Your task to perform on an android device: Open a new incognito window in Chrome Image 0: 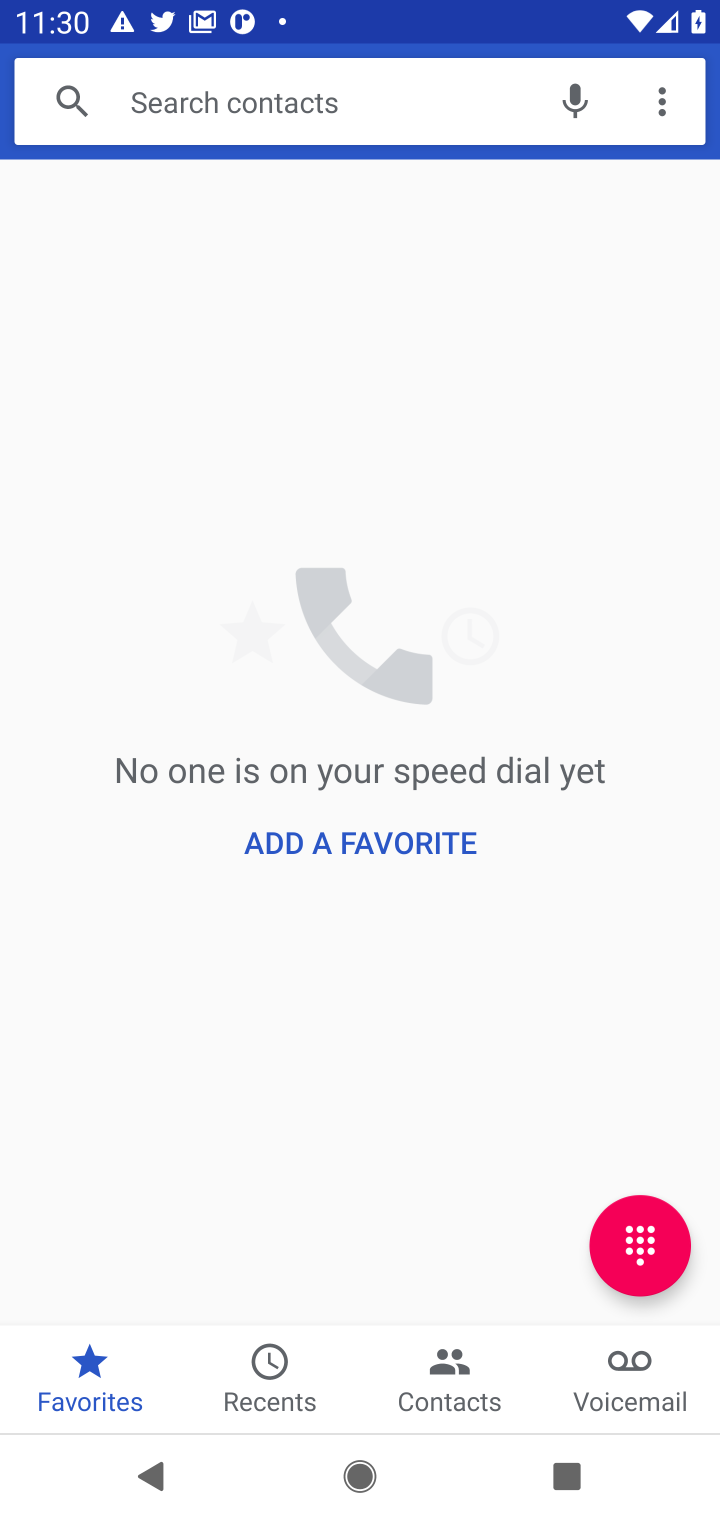
Step 0: press home button
Your task to perform on an android device: Open a new incognito window in Chrome Image 1: 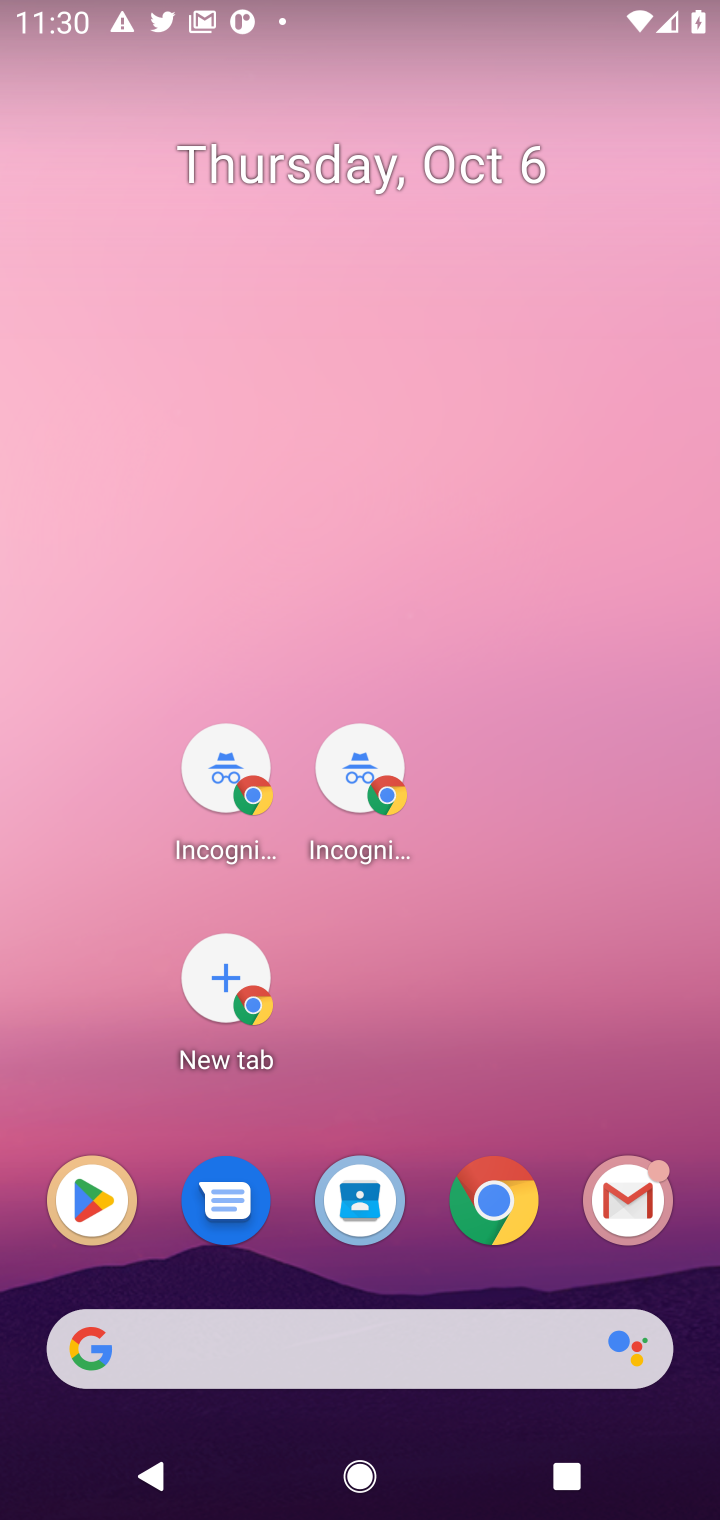
Step 1: click (503, 1223)
Your task to perform on an android device: Open a new incognito window in Chrome Image 2: 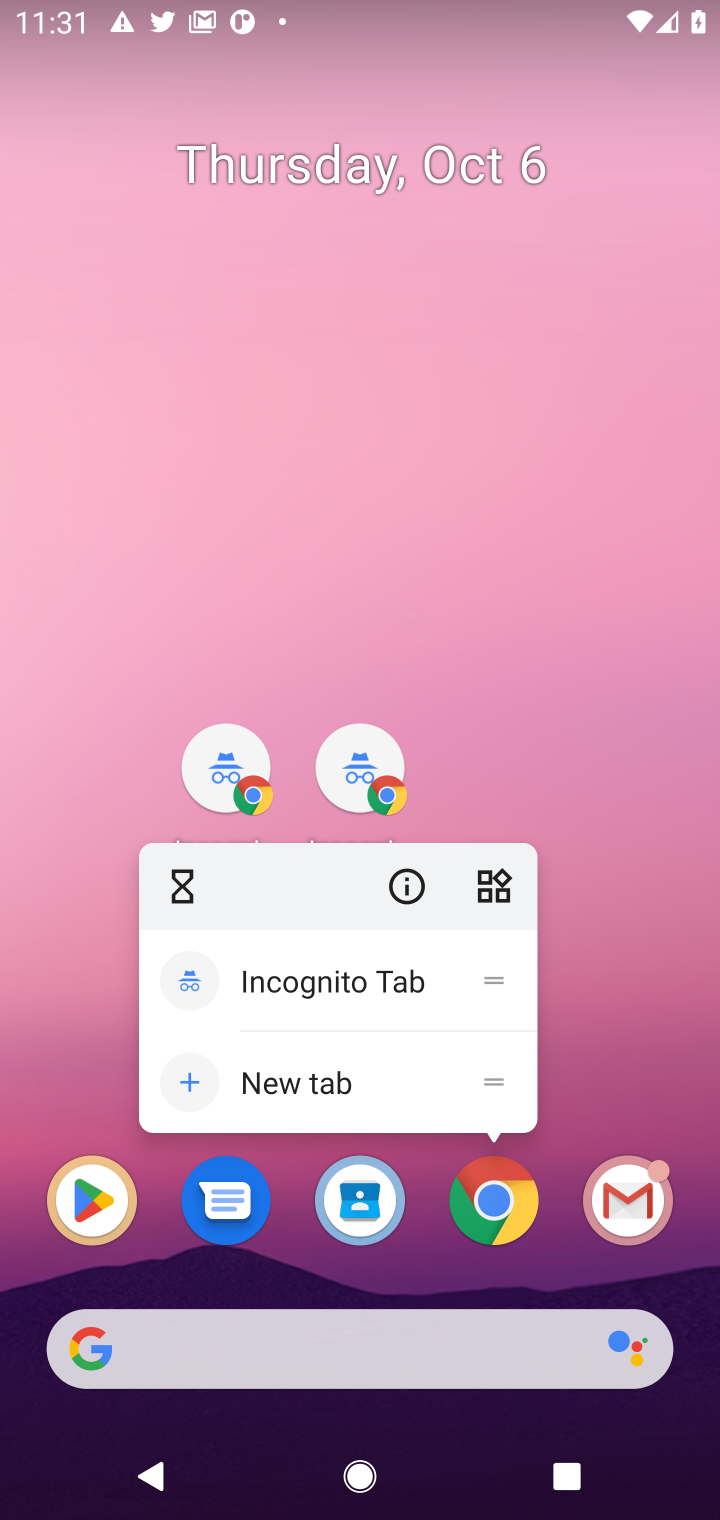
Step 2: press back button
Your task to perform on an android device: Open a new incognito window in Chrome Image 3: 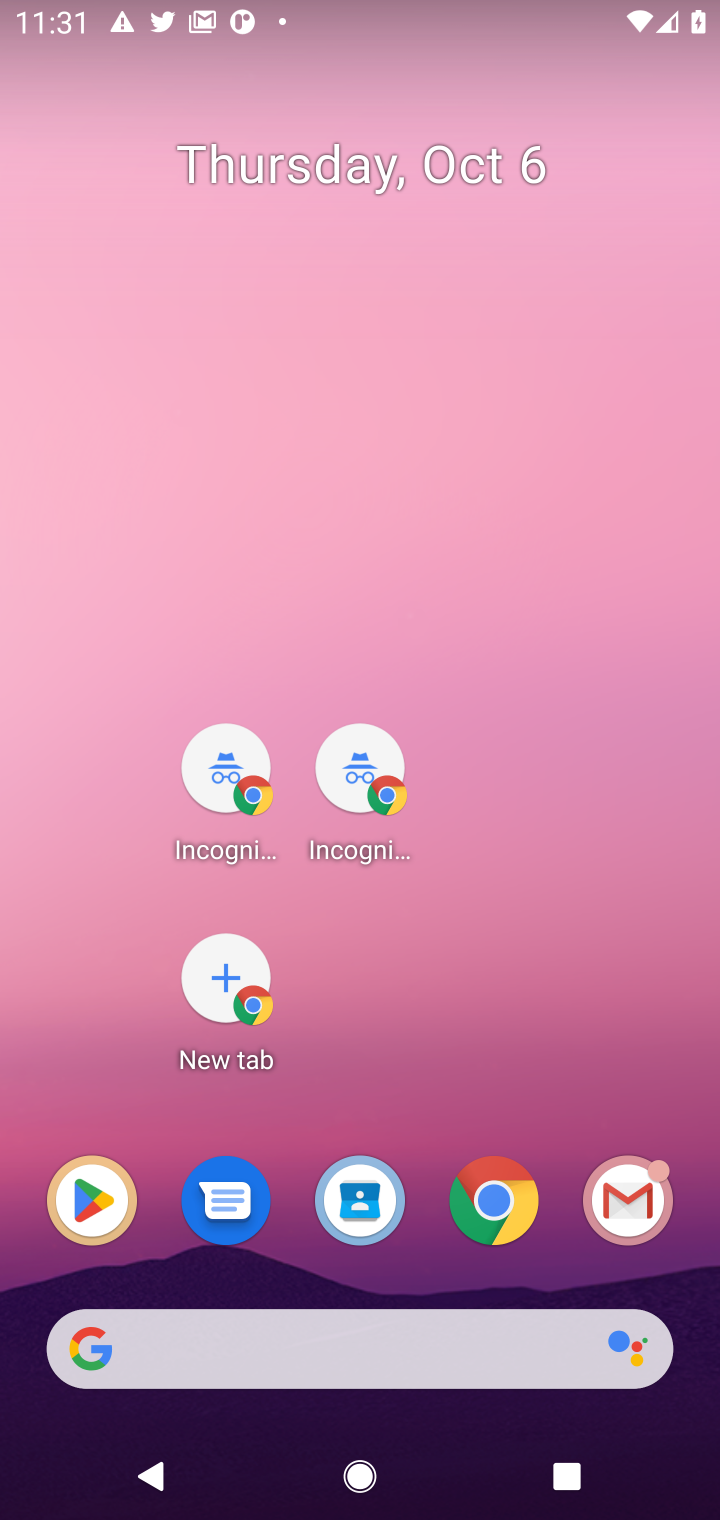
Step 3: press back button
Your task to perform on an android device: Open a new incognito window in Chrome Image 4: 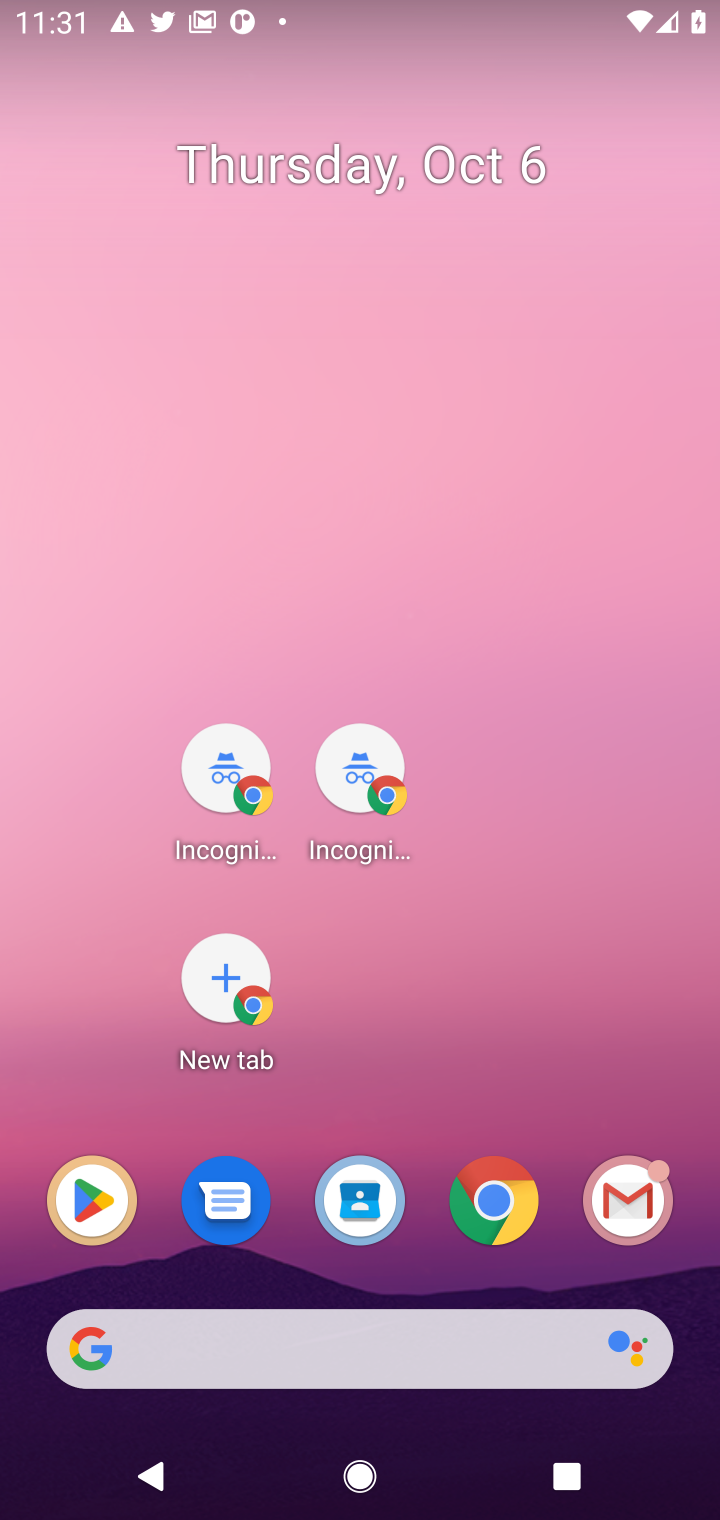
Step 4: click (508, 1195)
Your task to perform on an android device: Open a new incognito window in Chrome Image 5: 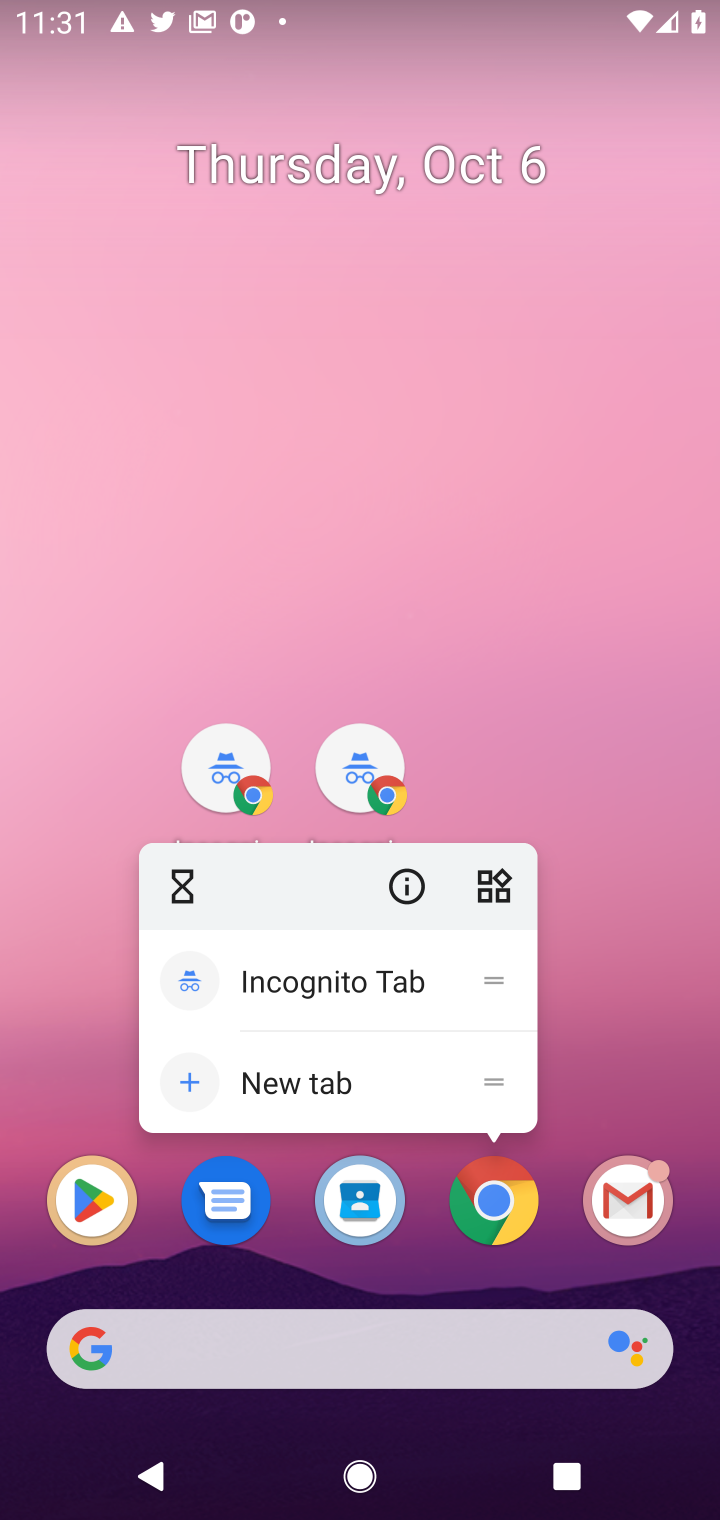
Step 5: press home button
Your task to perform on an android device: Open a new incognito window in Chrome Image 6: 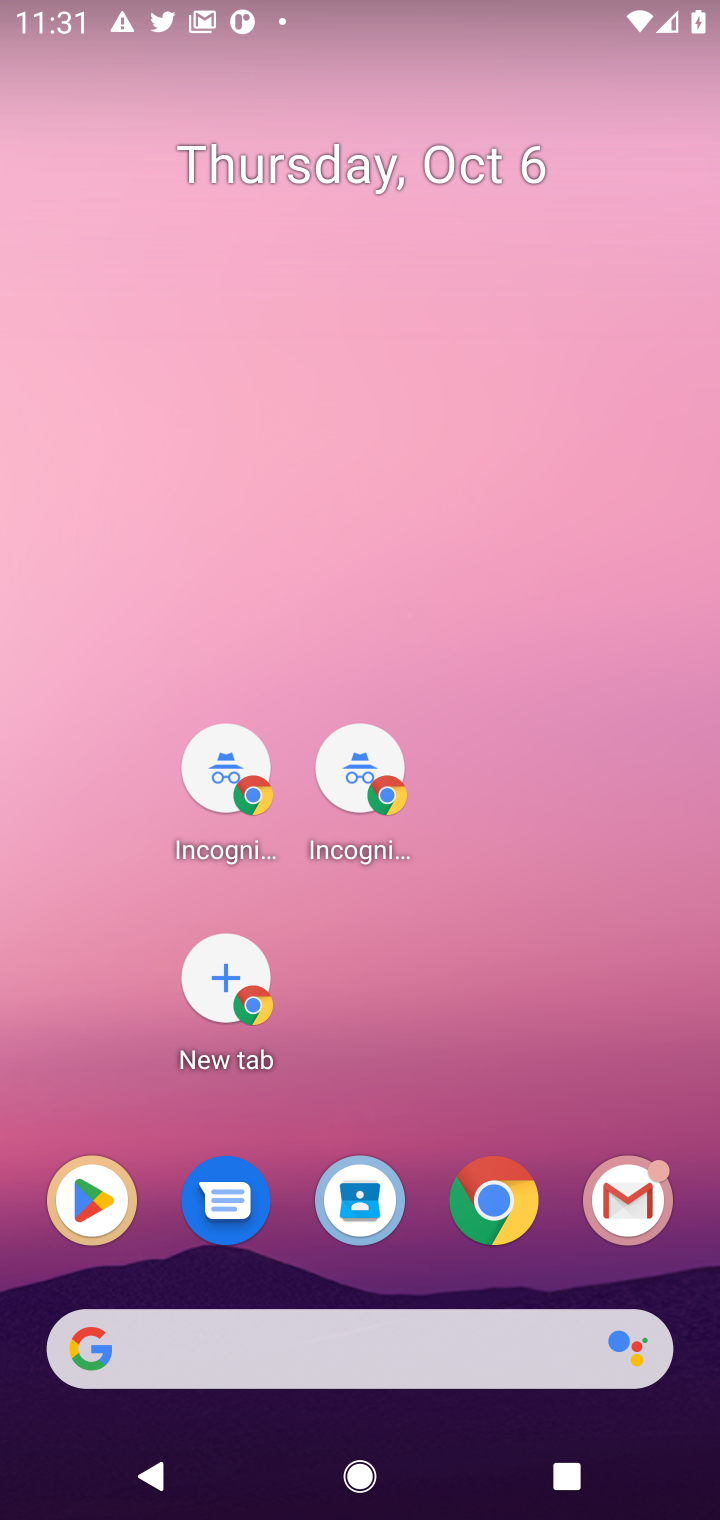
Step 6: press back button
Your task to perform on an android device: Open a new incognito window in Chrome Image 7: 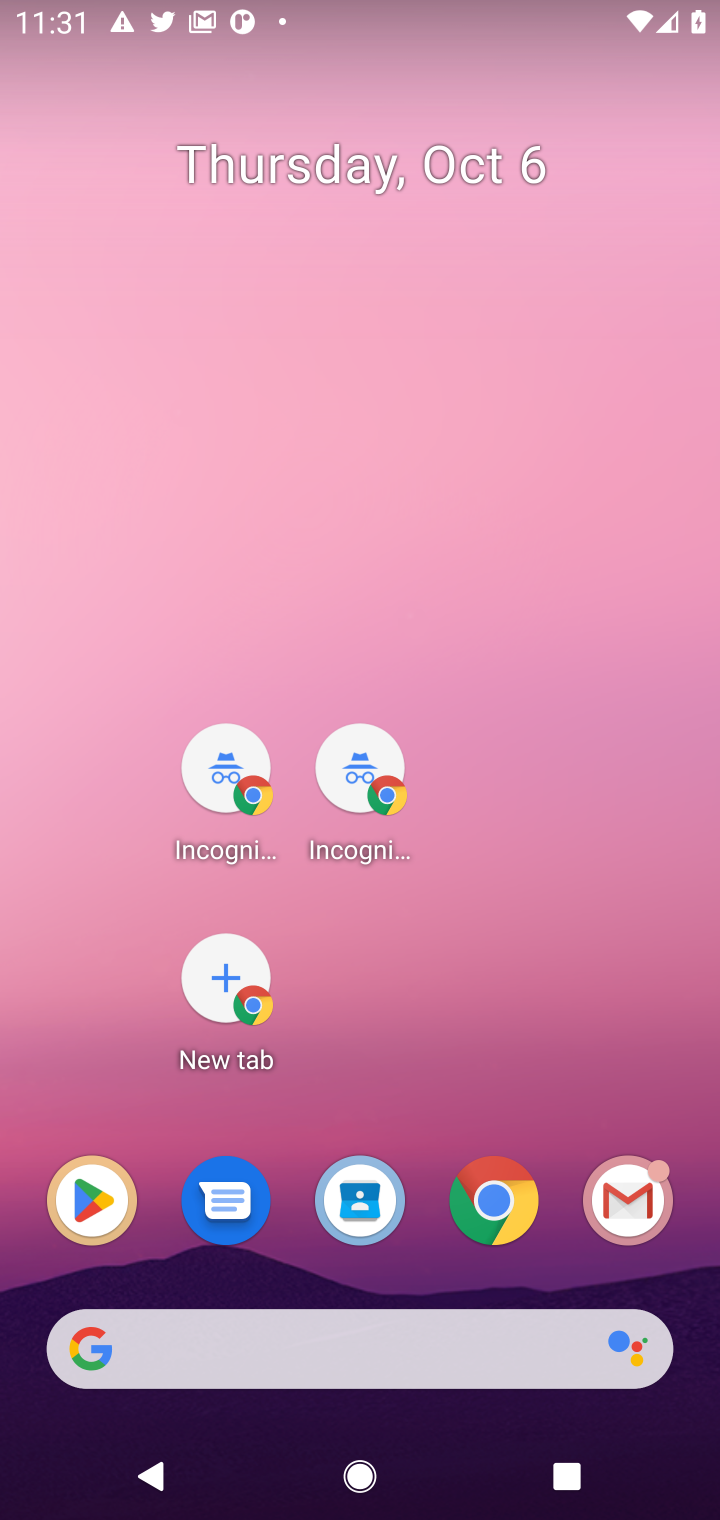
Step 7: click (484, 1224)
Your task to perform on an android device: Open a new incognito window in Chrome Image 8: 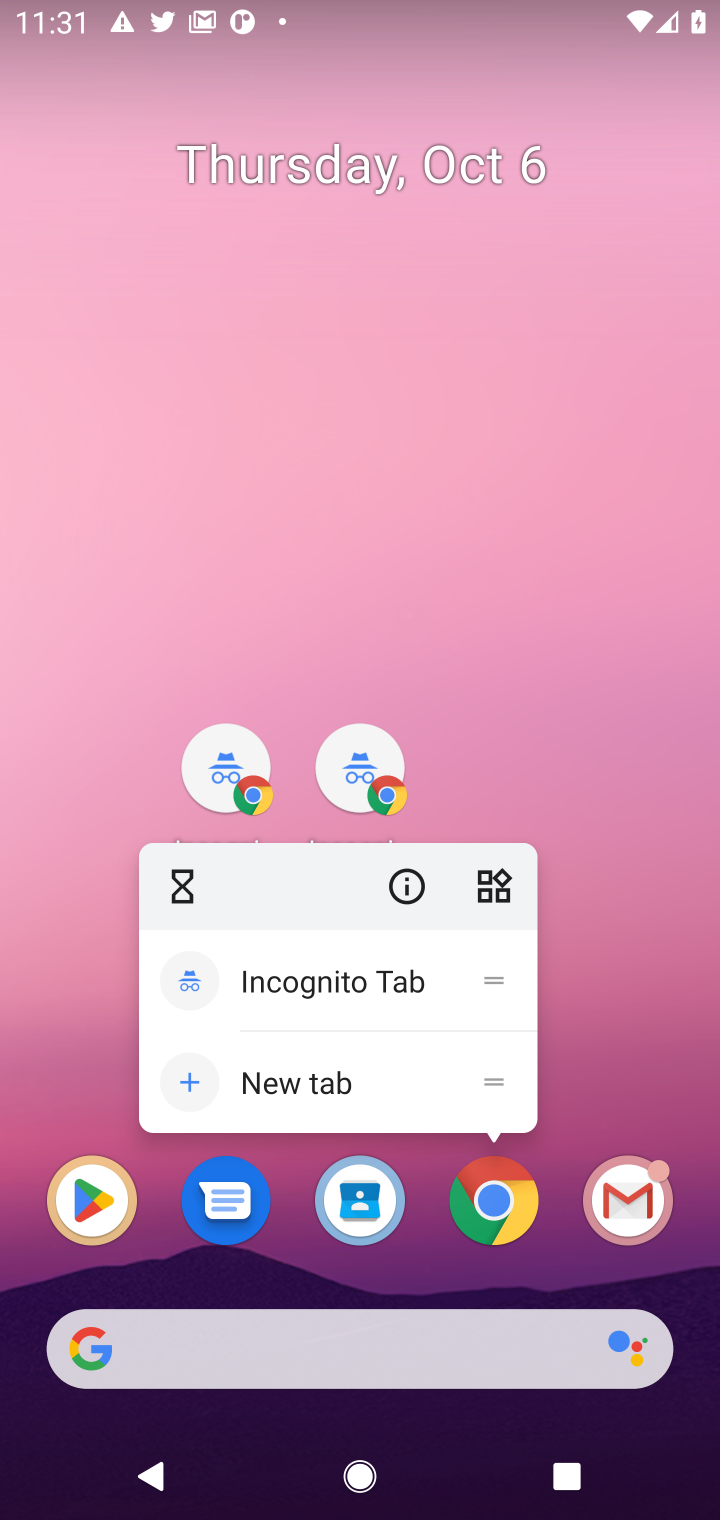
Step 8: click (500, 1210)
Your task to perform on an android device: Open a new incognito window in Chrome Image 9: 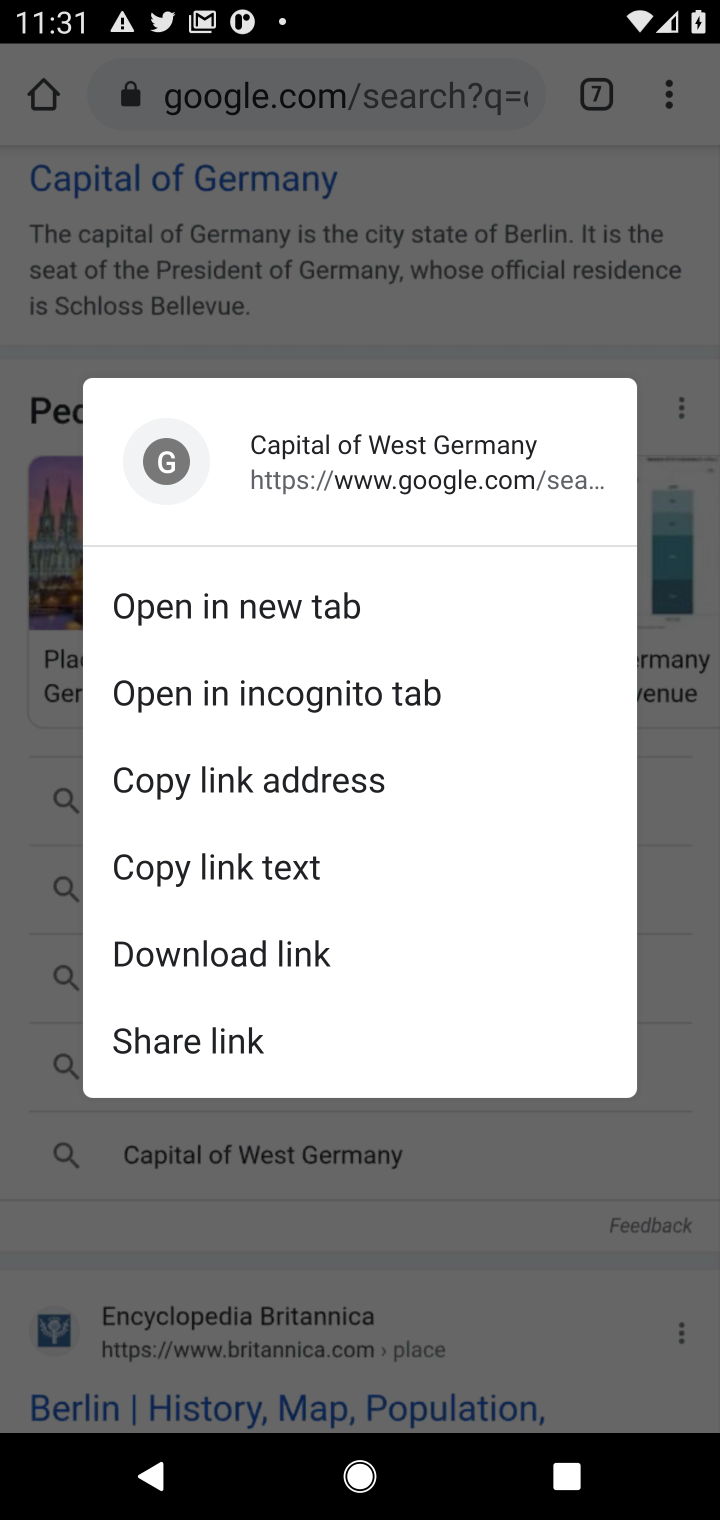
Step 9: click (482, 109)
Your task to perform on an android device: Open a new incognito window in Chrome Image 10: 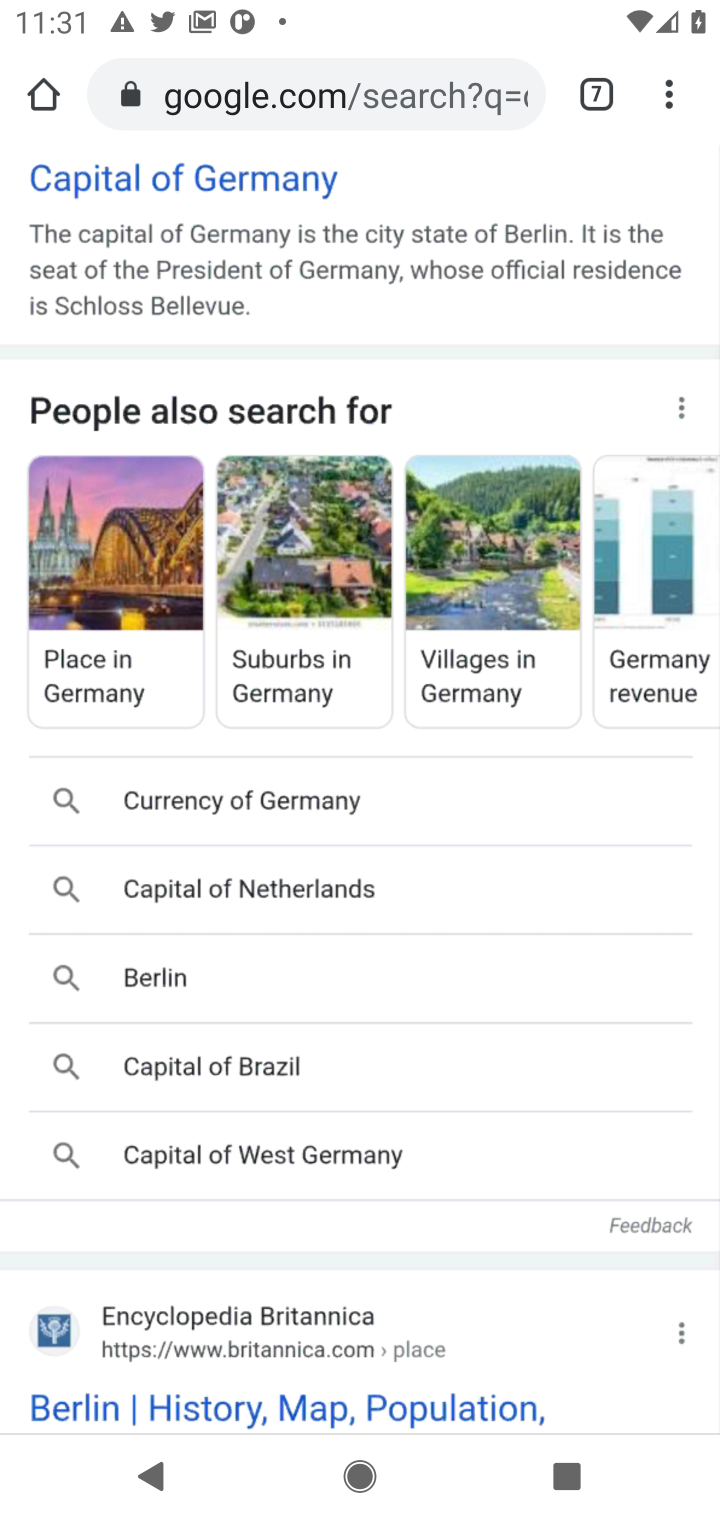
Step 10: click (592, 93)
Your task to perform on an android device: Open a new incognito window in Chrome Image 11: 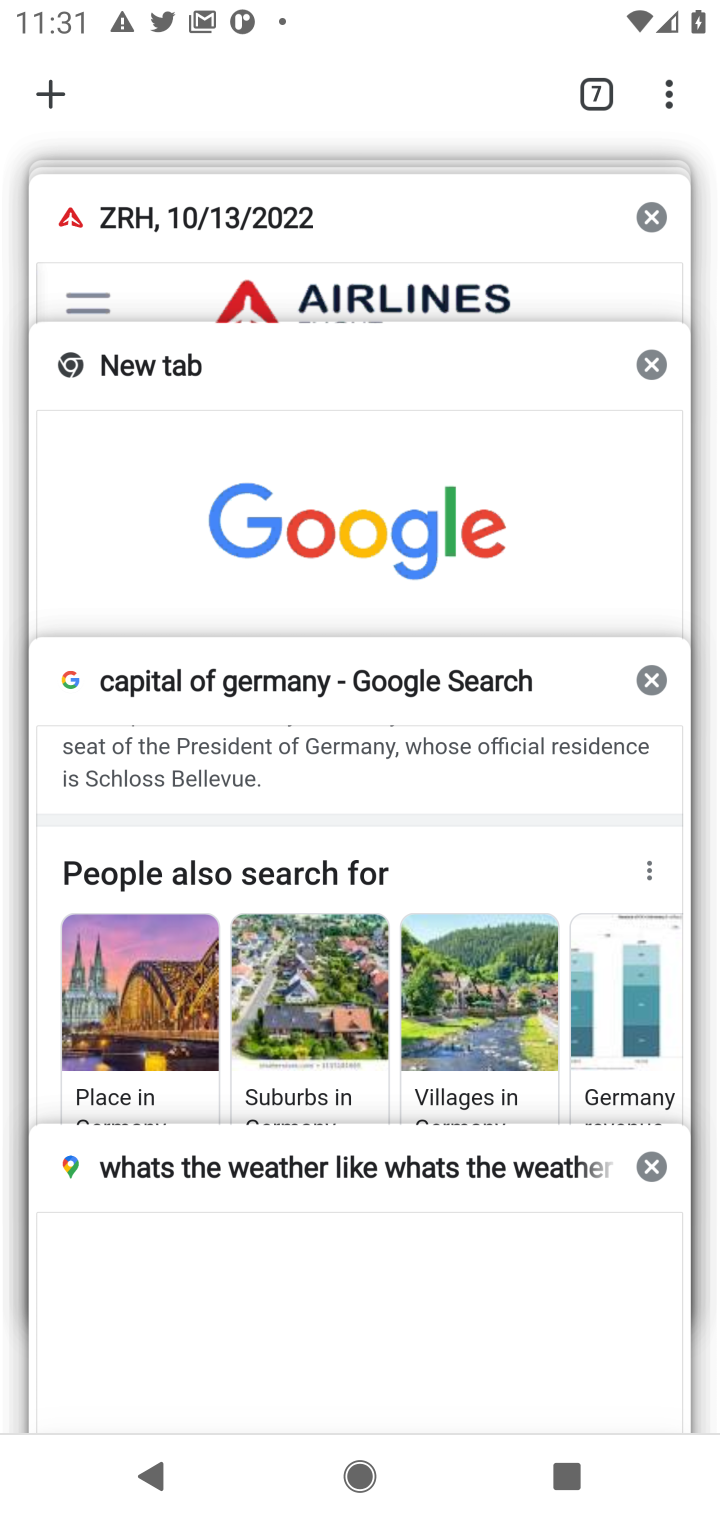
Step 11: click (649, 213)
Your task to perform on an android device: Open a new incognito window in Chrome Image 12: 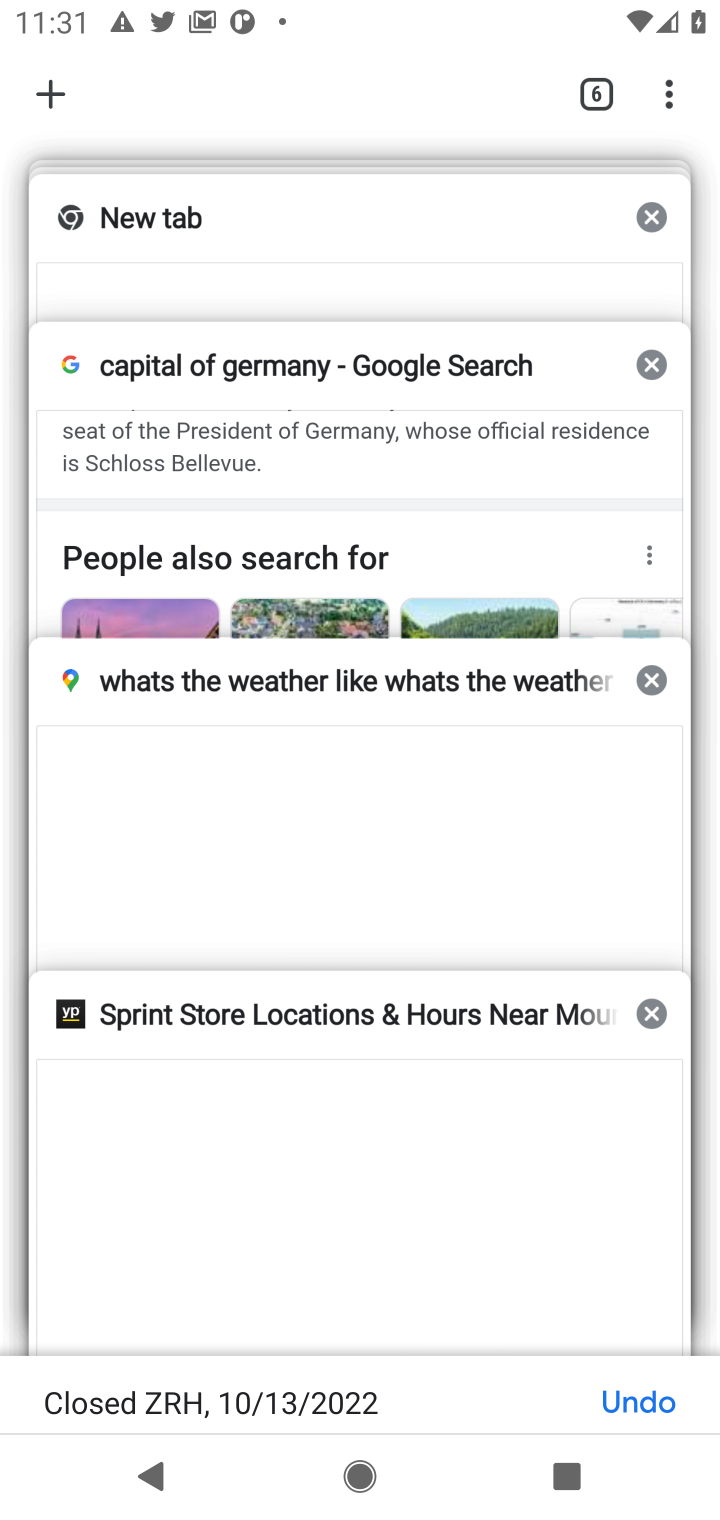
Step 12: click (649, 213)
Your task to perform on an android device: Open a new incognito window in Chrome Image 13: 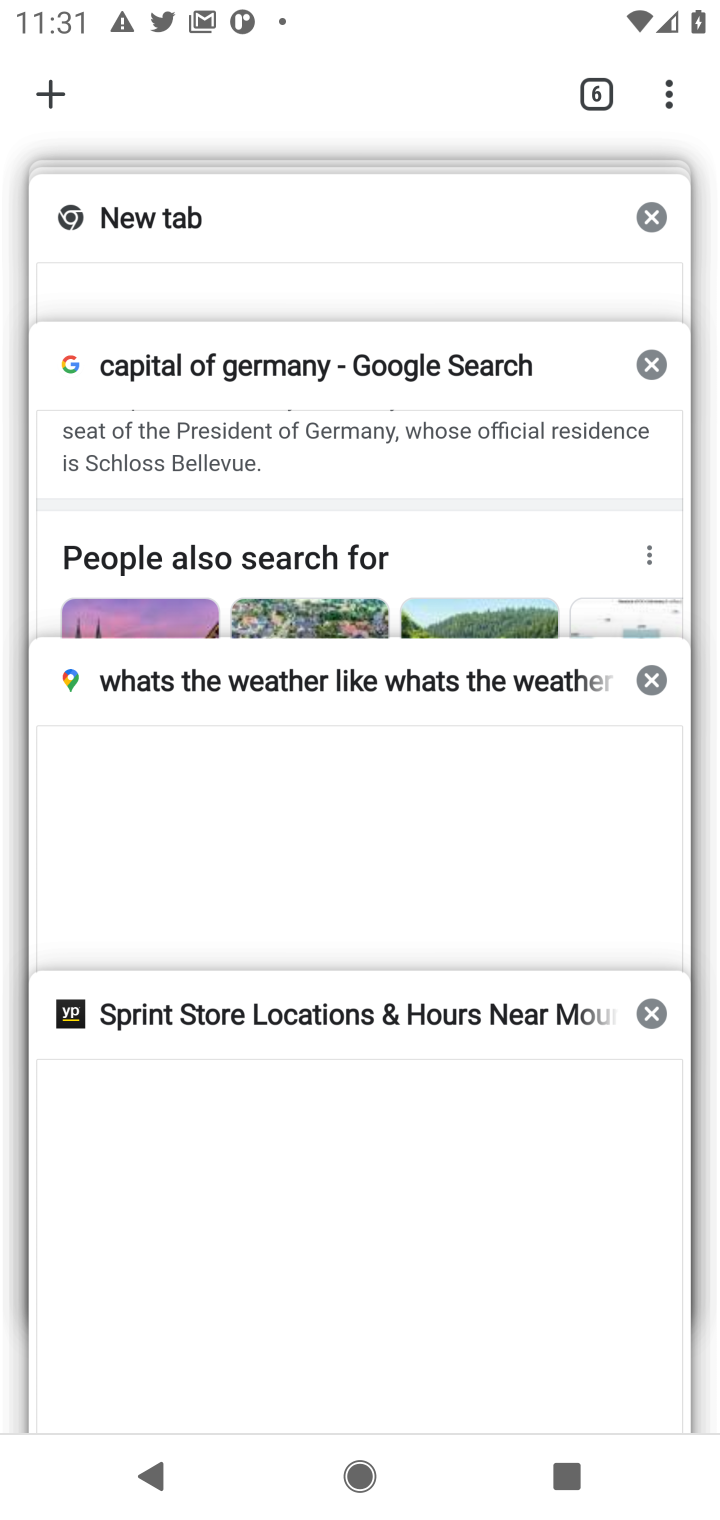
Step 13: click (649, 213)
Your task to perform on an android device: Open a new incognito window in Chrome Image 14: 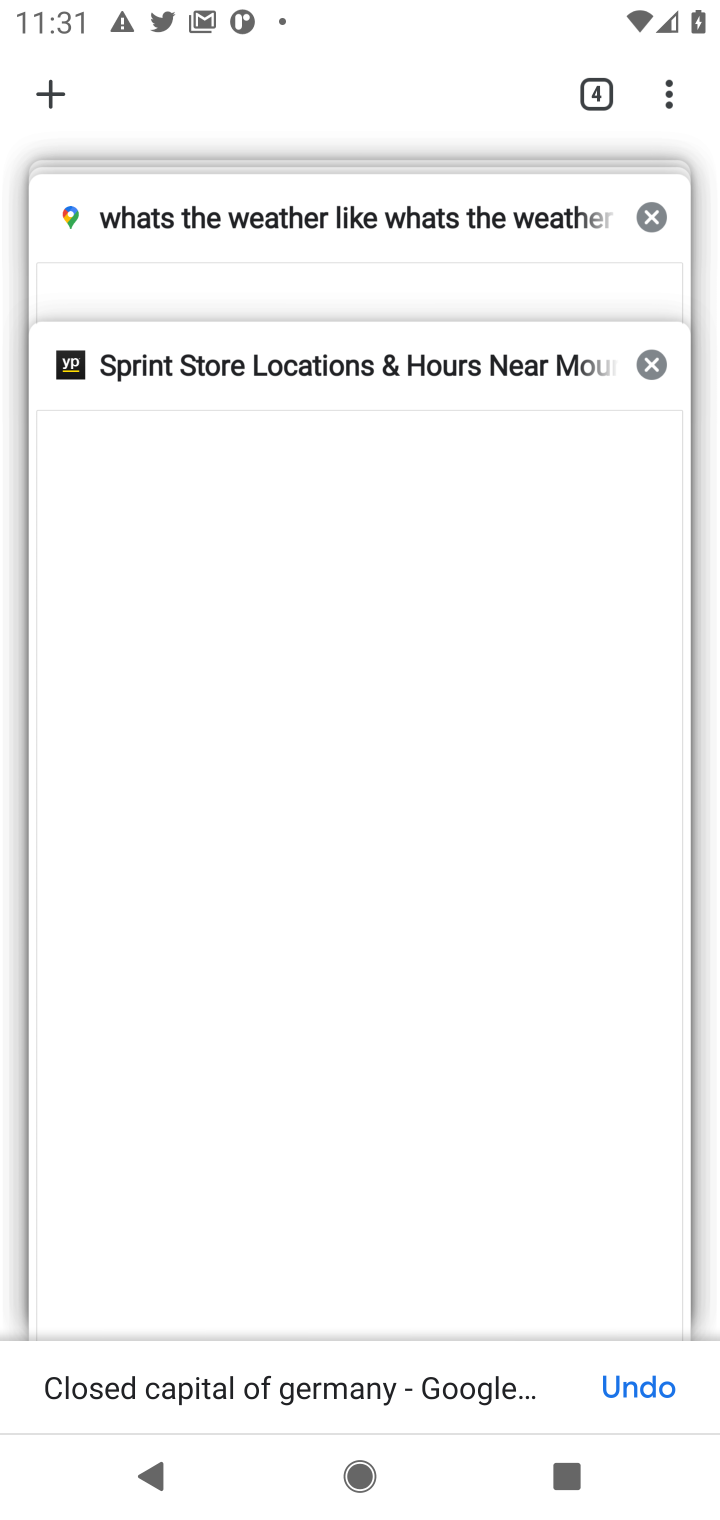
Step 14: click (653, 215)
Your task to perform on an android device: Open a new incognito window in Chrome Image 15: 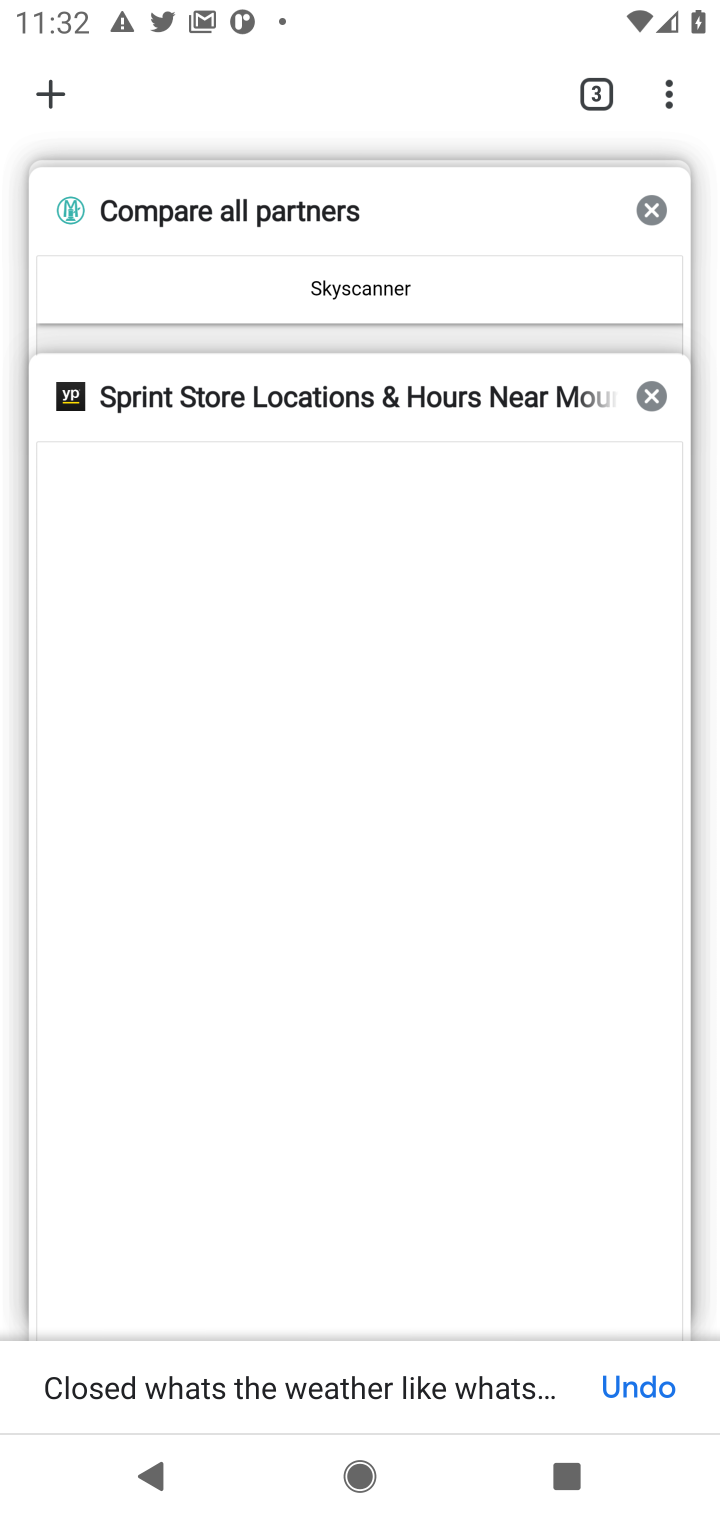
Step 15: click (653, 215)
Your task to perform on an android device: Open a new incognito window in Chrome Image 16: 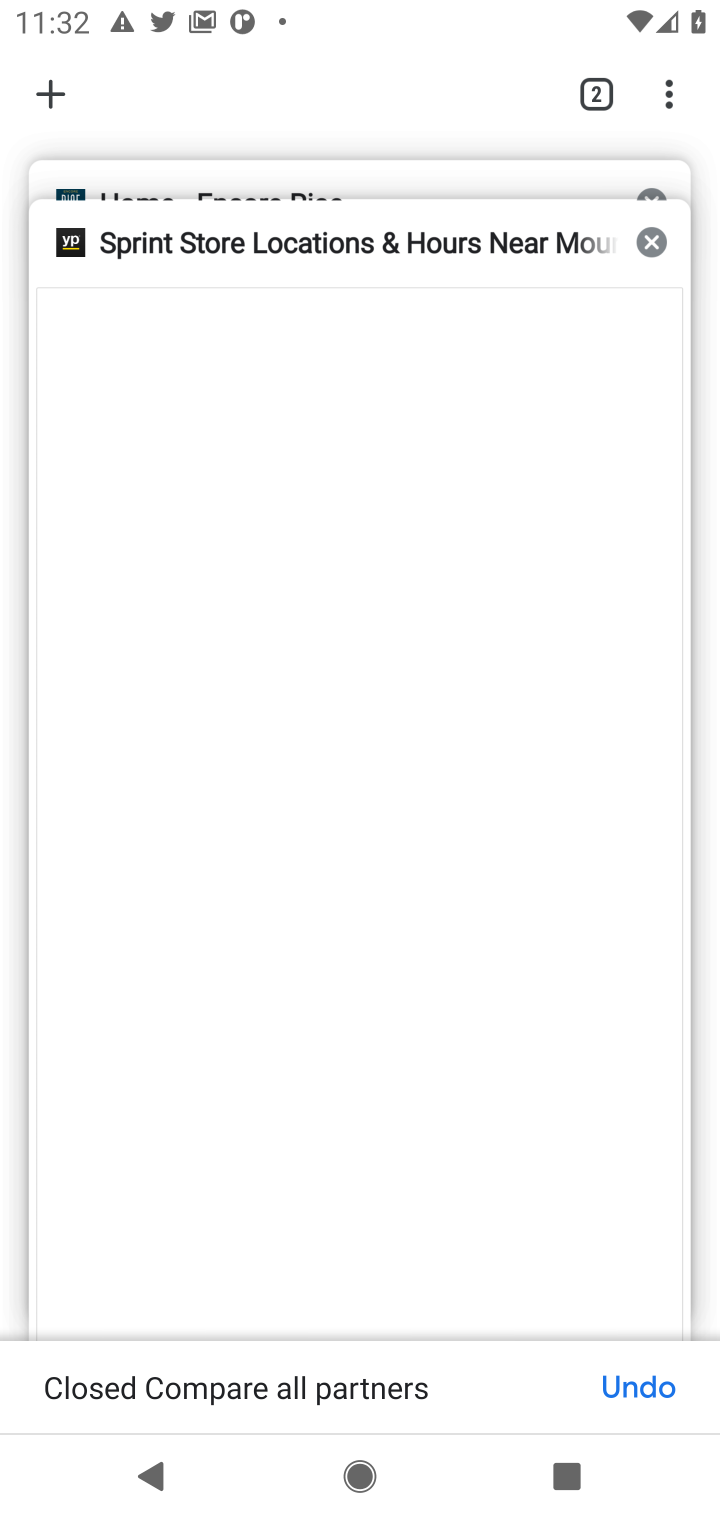
Step 16: click (645, 246)
Your task to perform on an android device: Open a new incognito window in Chrome Image 17: 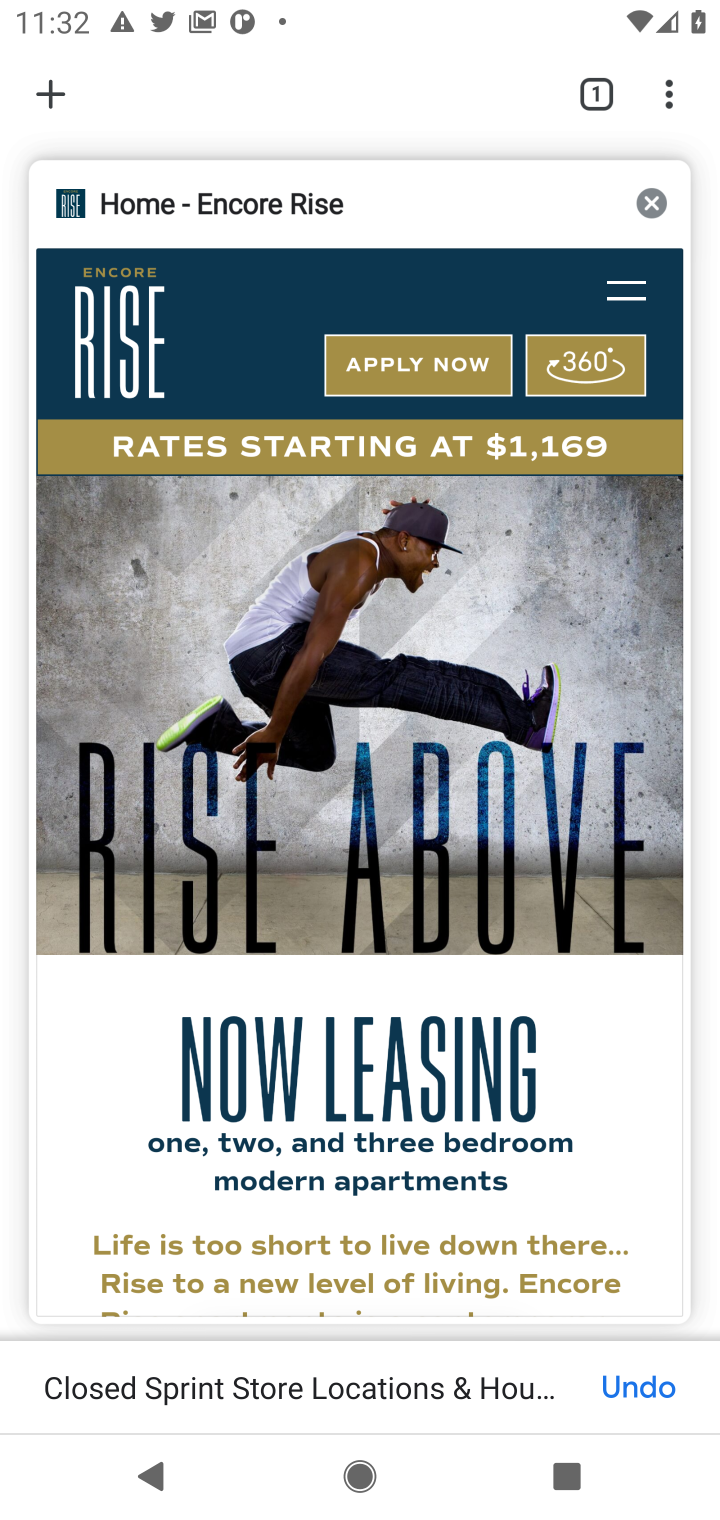
Step 17: click (649, 196)
Your task to perform on an android device: Open a new incognito window in Chrome Image 18: 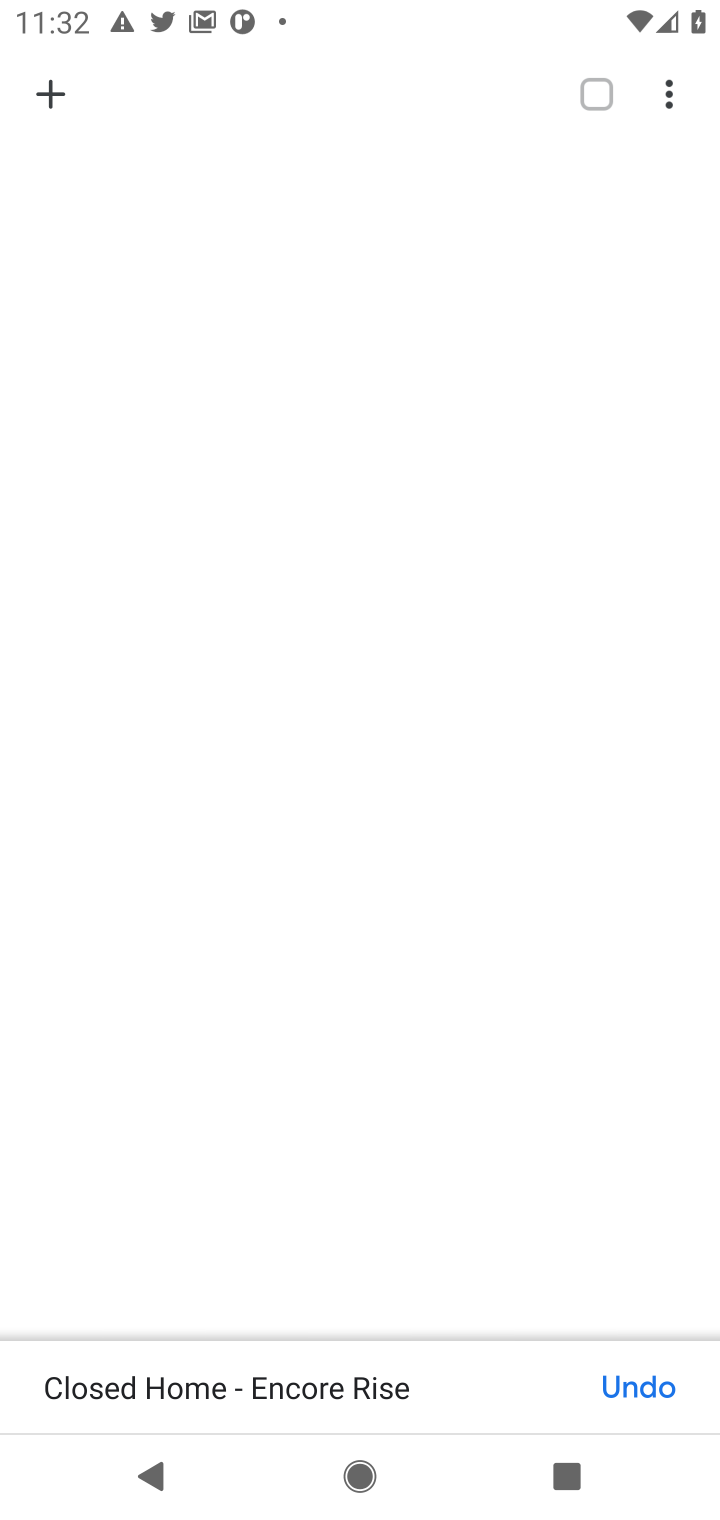
Step 18: click (662, 98)
Your task to perform on an android device: Open a new incognito window in Chrome Image 19: 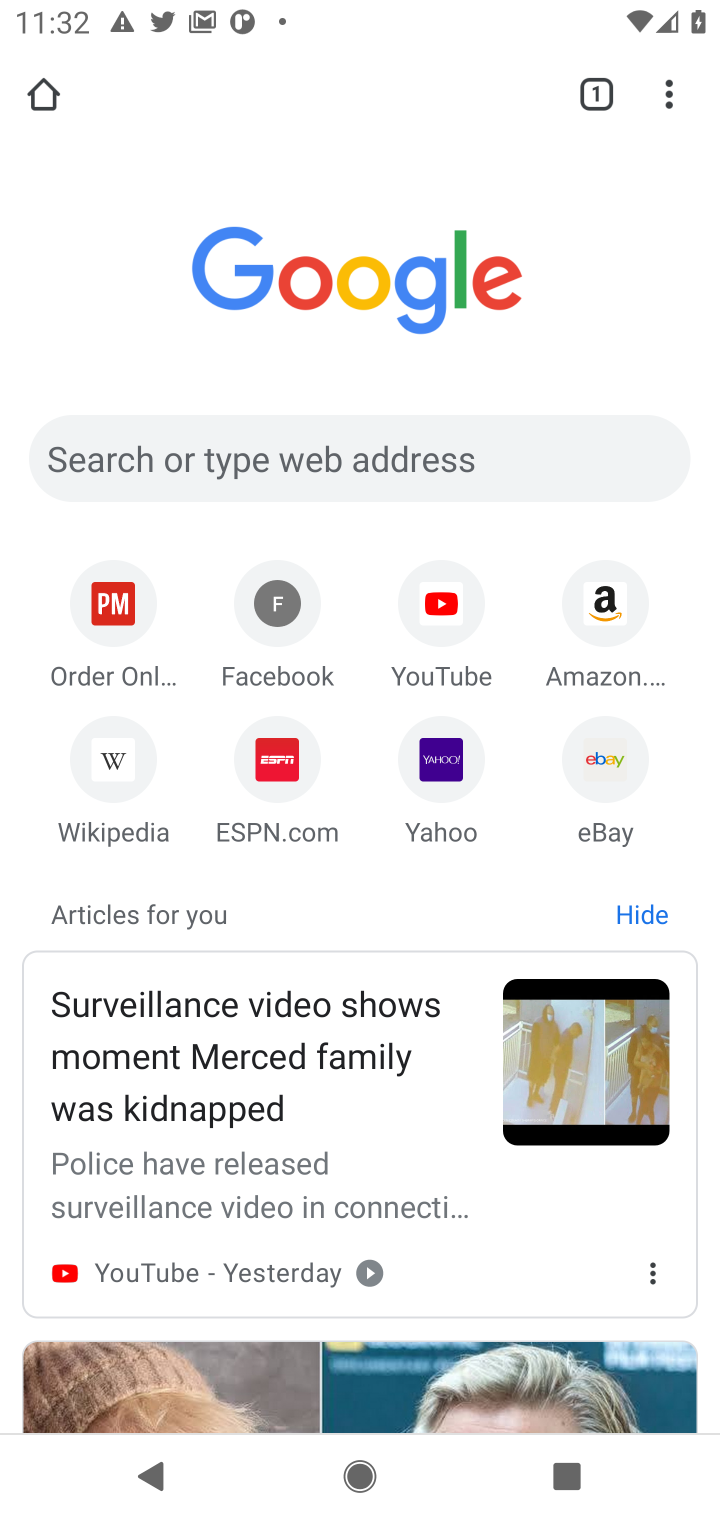
Step 19: click (667, 83)
Your task to perform on an android device: Open a new incognito window in Chrome Image 20: 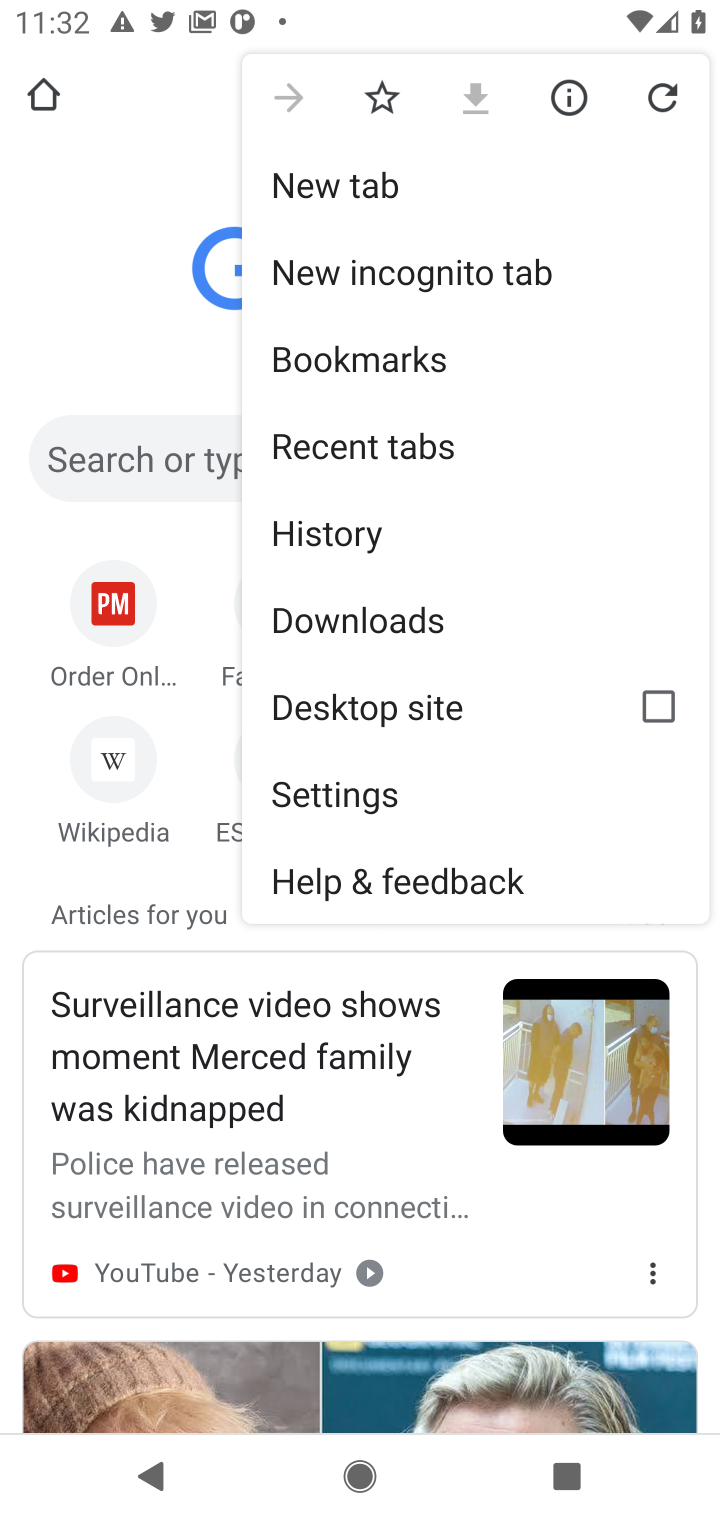
Step 20: click (325, 282)
Your task to perform on an android device: Open a new incognito window in Chrome Image 21: 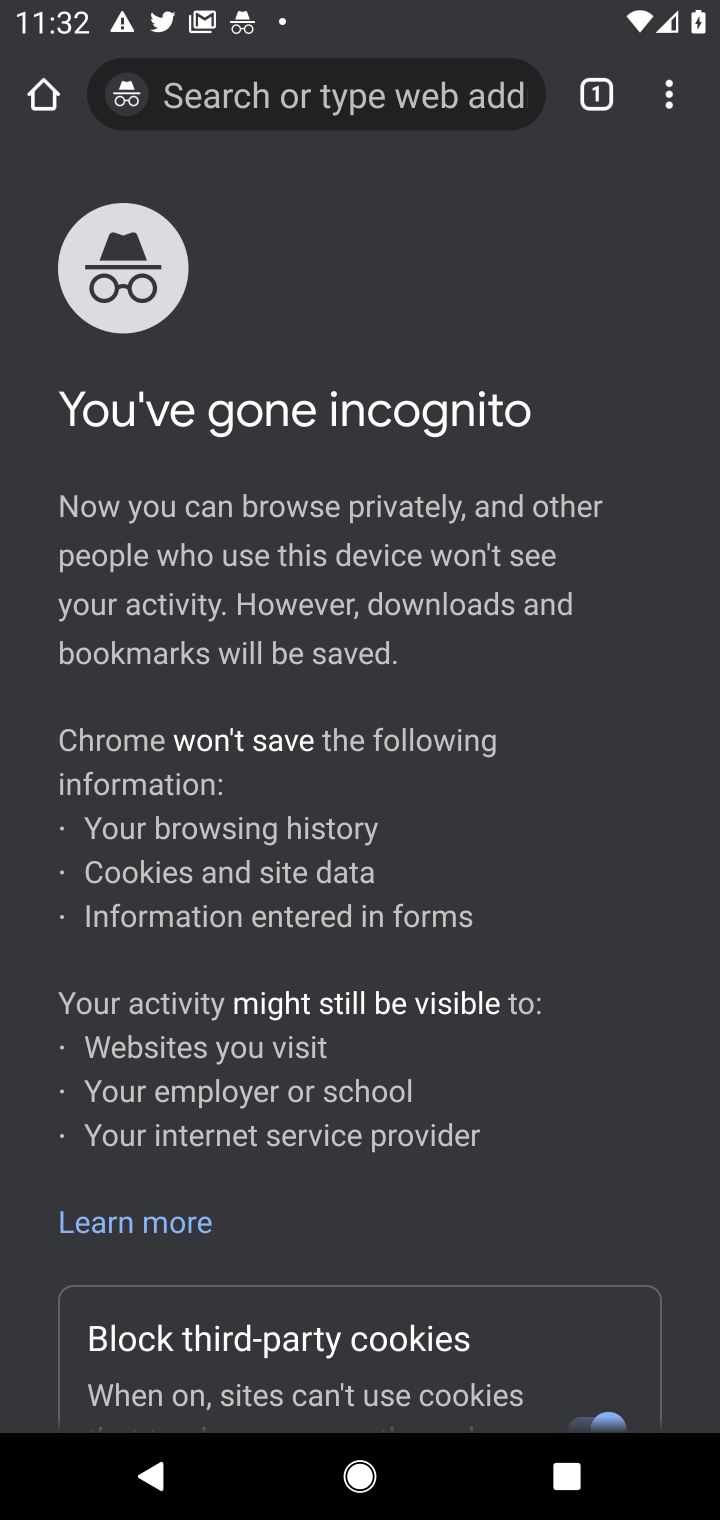
Step 21: task complete